Your task to perform on an android device: manage bookmarks in the chrome app Image 0: 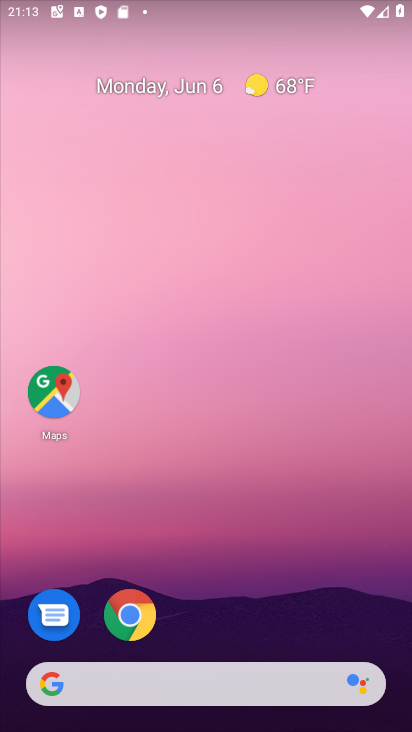
Step 0: click (131, 623)
Your task to perform on an android device: manage bookmarks in the chrome app Image 1: 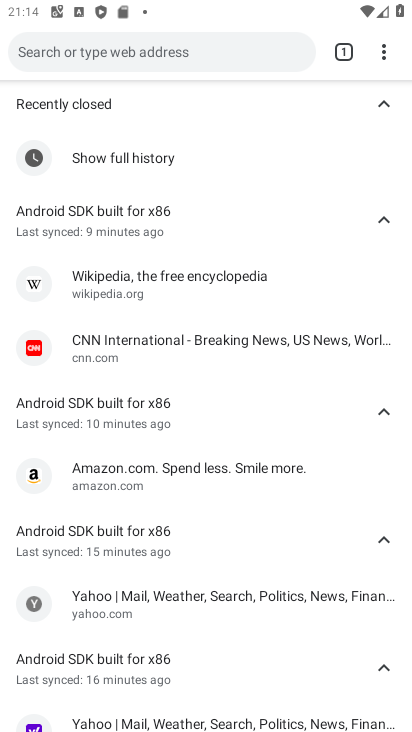
Step 1: click (381, 44)
Your task to perform on an android device: manage bookmarks in the chrome app Image 2: 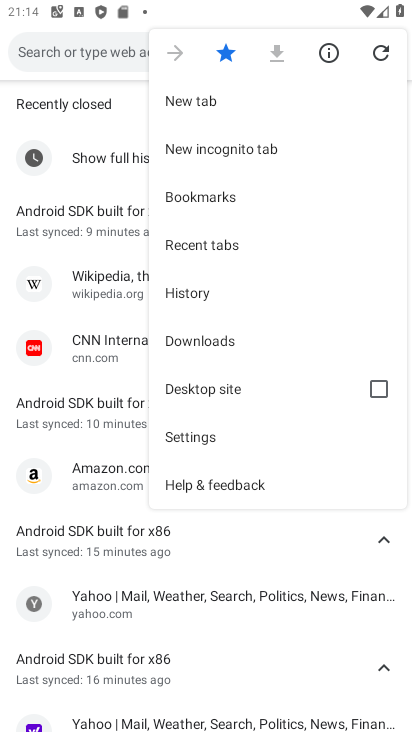
Step 2: click (206, 197)
Your task to perform on an android device: manage bookmarks in the chrome app Image 3: 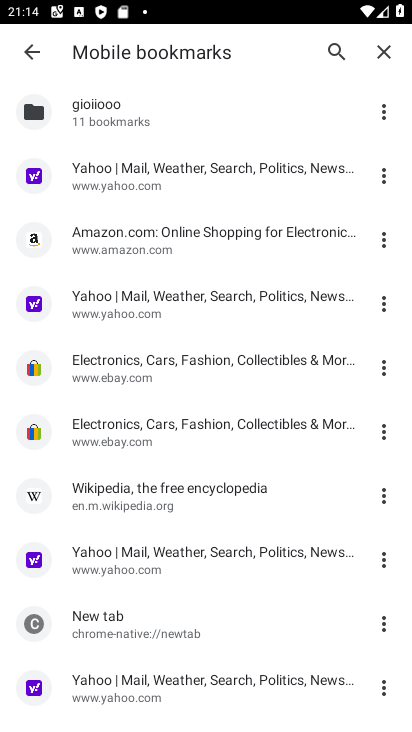
Step 3: click (374, 240)
Your task to perform on an android device: manage bookmarks in the chrome app Image 4: 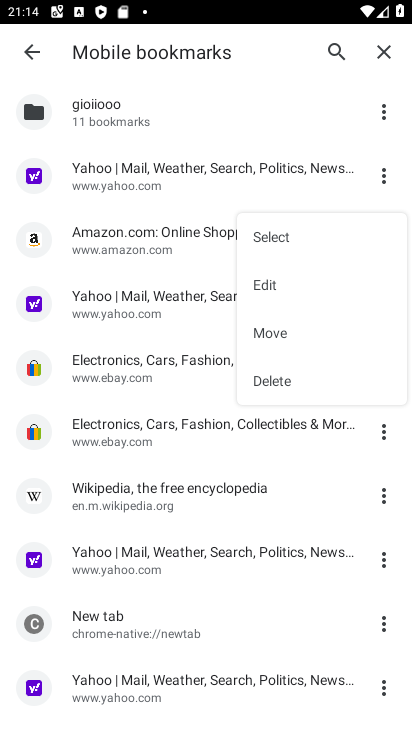
Step 4: click (271, 373)
Your task to perform on an android device: manage bookmarks in the chrome app Image 5: 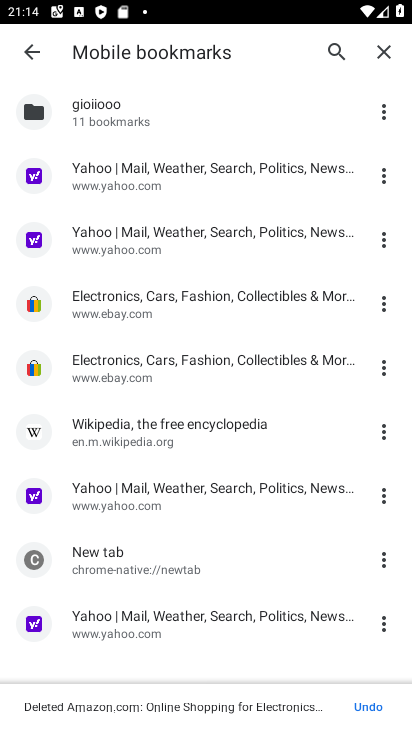
Step 5: task complete